Your task to perform on an android device: check battery use Image 0: 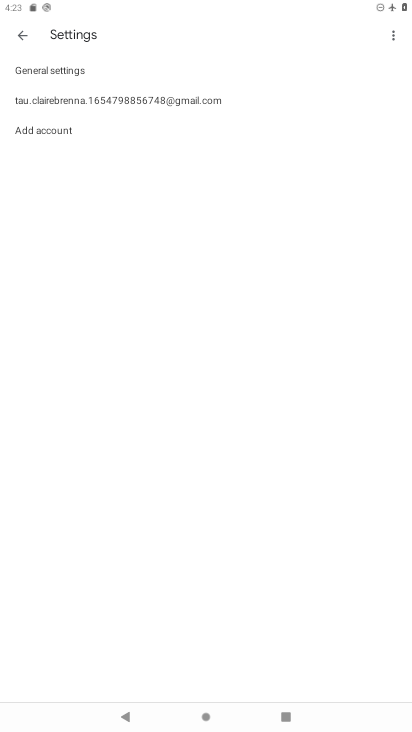
Step 0: press home button
Your task to perform on an android device: check battery use Image 1: 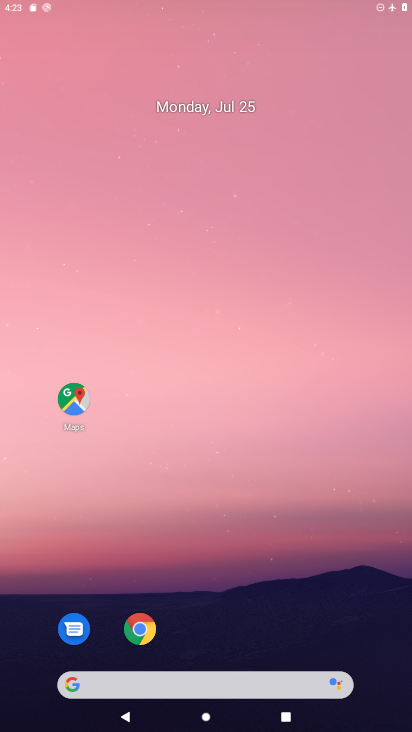
Step 1: drag from (212, 671) to (196, 45)
Your task to perform on an android device: check battery use Image 2: 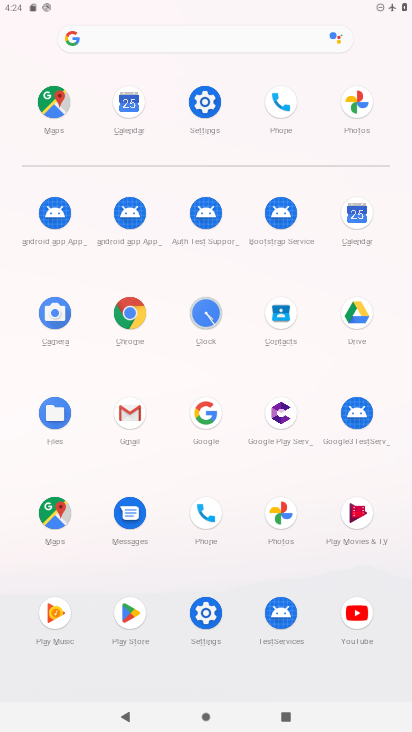
Step 2: click (220, 97)
Your task to perform on an android device: check battery use Image 3: 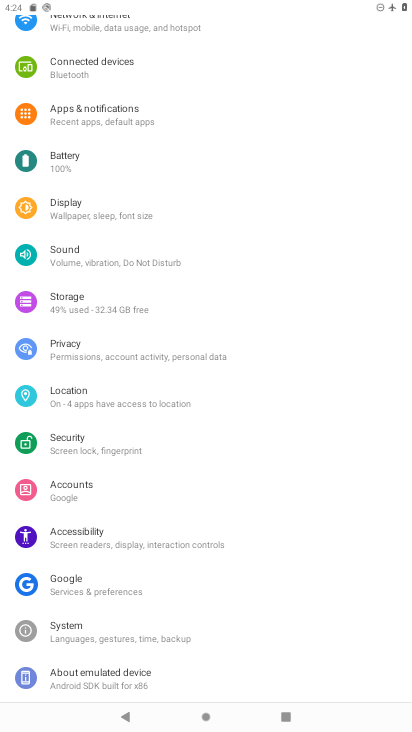
Step 3: click (83, 168)
Your task to perform on an android device: check battery use Image 4: 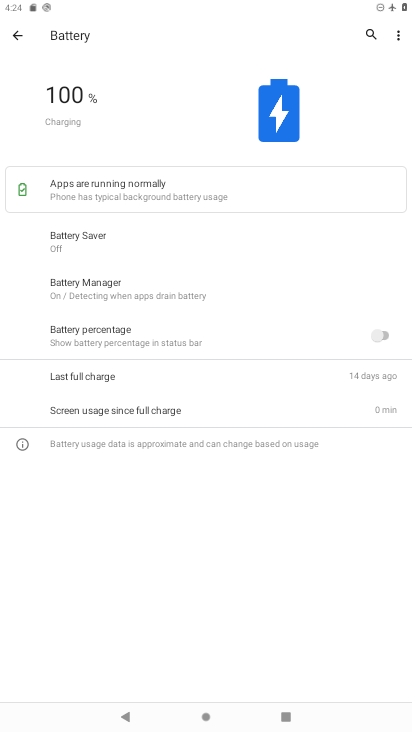
Step 4: task complete